Your task to perform on an android device: open sync settings in chrome Image 0: 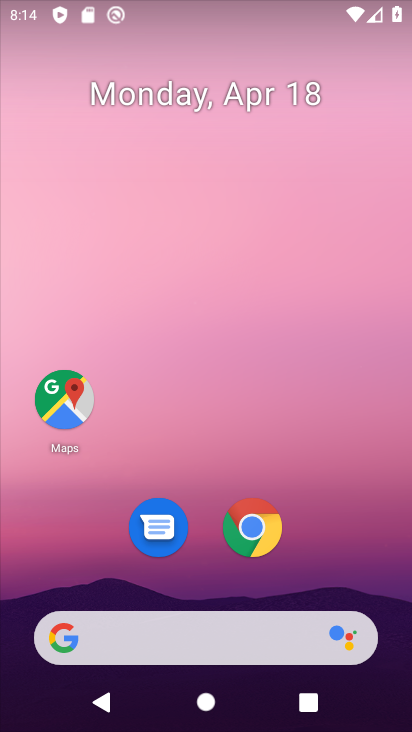
Step 0: drag from (124, 547) to (277, 41)
Your task to perform on an android device: open sync settings in chrome Image 1: 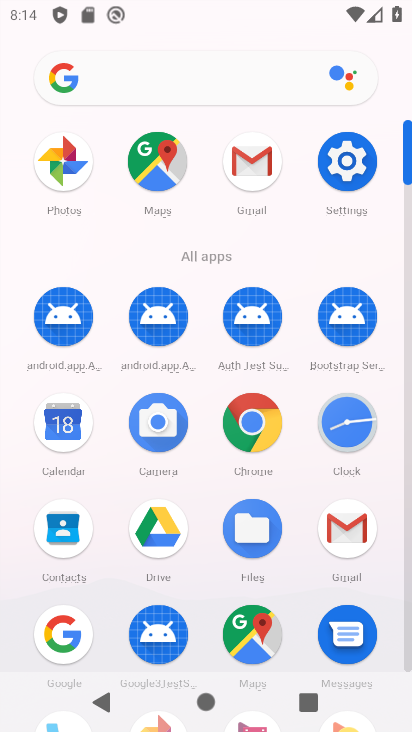
Step 1: click (254, 436)
Your task to perform on an android device: open sync settings in chrome Image 2: 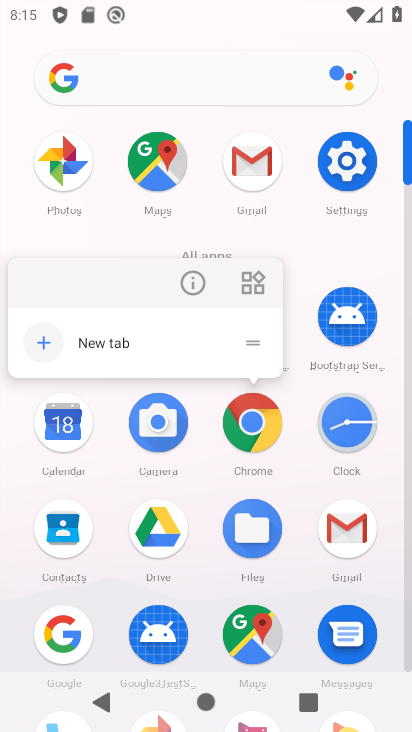
Step 2: click (254, 411)
Your task to perform on an android device: open sync settings in chrome Image 3: 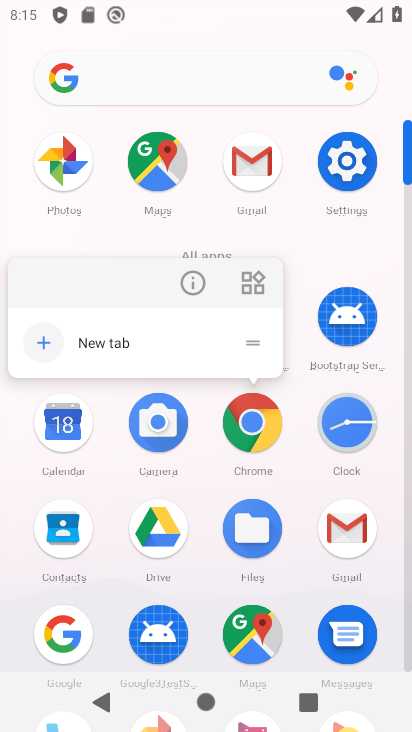
Step 3: click (245, 414)
Your task to perform on an android device: open sync settings in chrome Image 4: 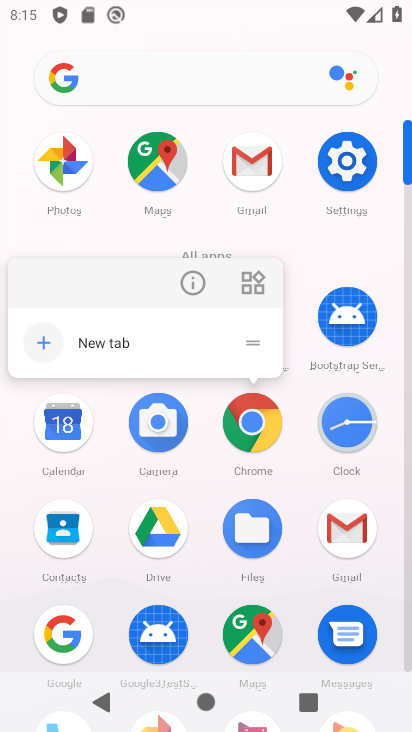
Step 4: click (244, 434)
Your task to perform on an android device: open sync settings in chrome Image 5: 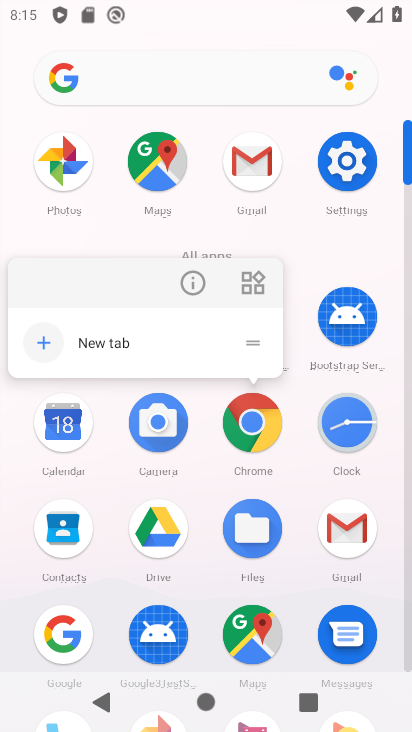
Step 5: click (267, 437)
Your task to perform on an android device: open sync settings in chrome Image 6: 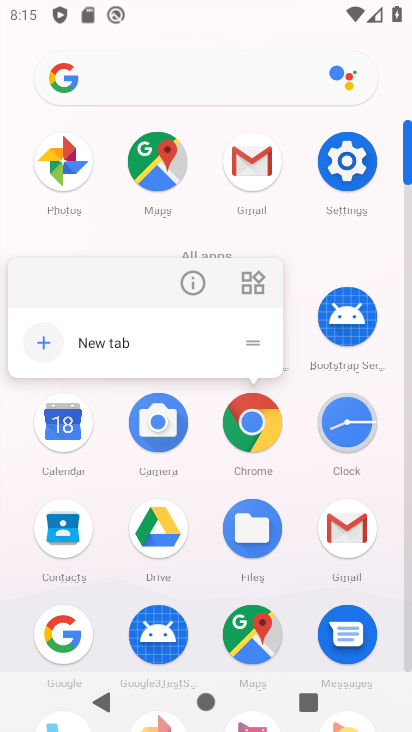
Step 6: click (264, 429)
Your task to perform on an android device: open sync settings in chrome Image 7: 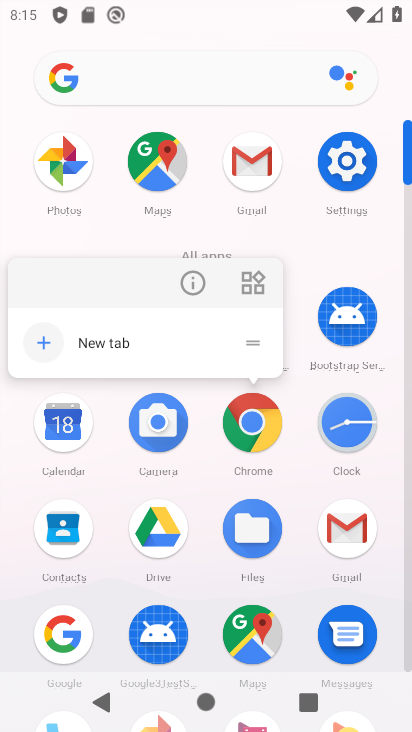
Step 7: click (255, 398)
Your task to perform on an android device: open sync settings in chrome Image 8: 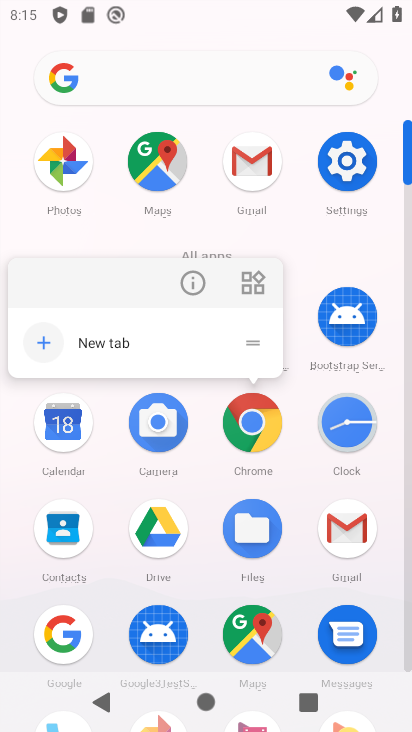
Step 8: click (255, 422)
Your task to perform on an android device: open sync settings in chrome Image 9: 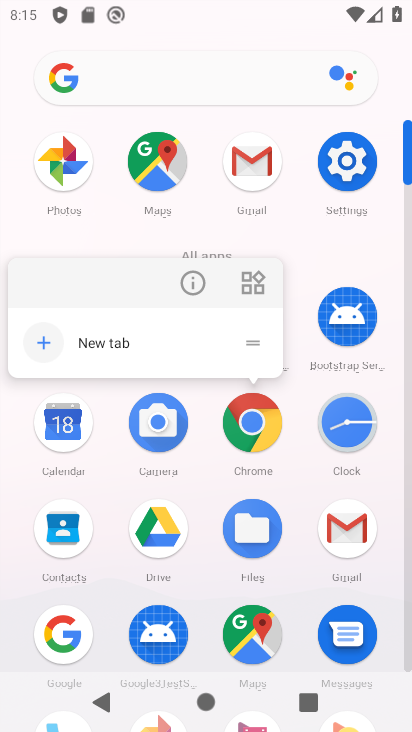
Step 9: click (238, 439)
Your task to perform on an android device: open sync settings in chrome Image 10: 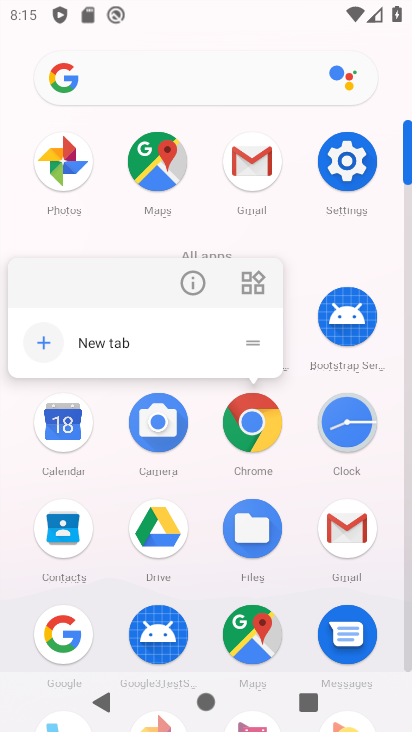
Step 10: click (233, 400)
Your task to perform on an android device: open sync settings in chrome Image 11: 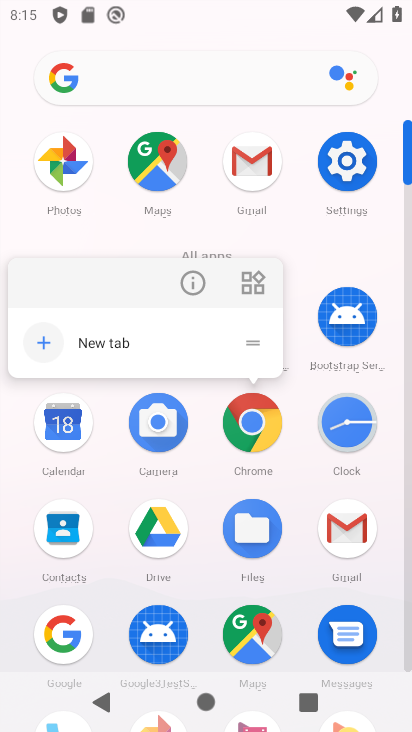
Step 11: click (245, 407)
Your task to perform on an android device: open sync settings in chrome Image 12: 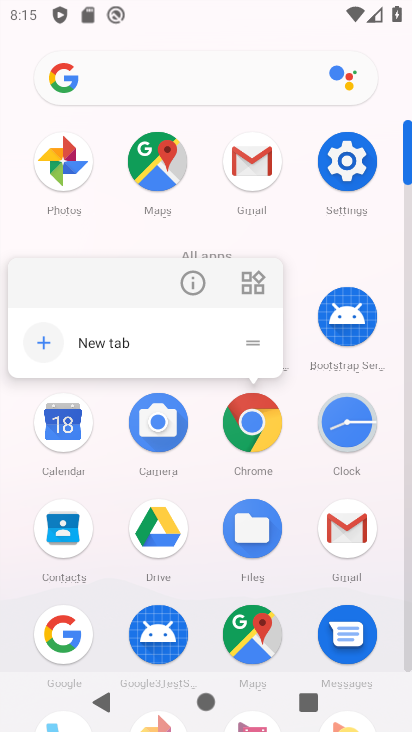
Step 12: click (251, 438)
Your task to perform on an android device: open sync settings in chrome Image 13: 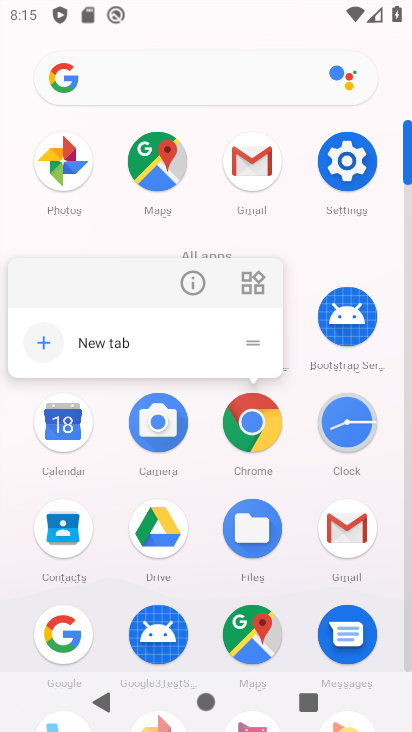
Step 13: click (274, 420)
Your task to perform on an android device: open sync settings in chrome Image 14: 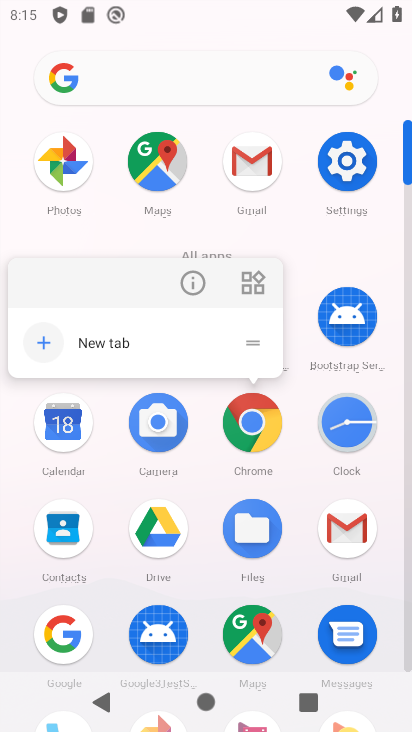
Step 14: click (273, 447)
Your task to perform on an android device: open sync settings in chrome Image 15: 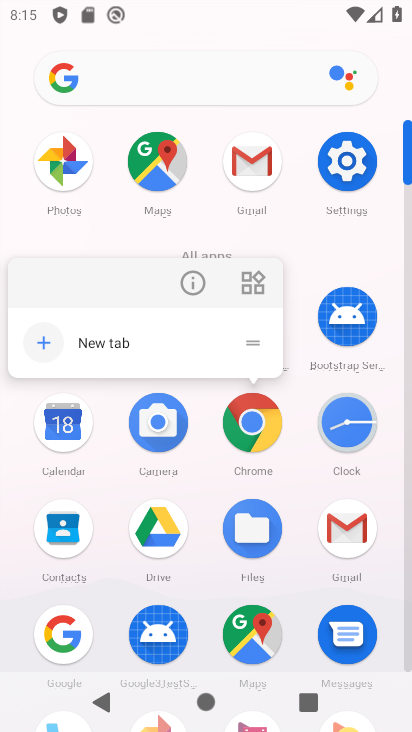
Step 15: click (245, 417)
Your task to perform on an android device: open sync settings in chrome Image 16: 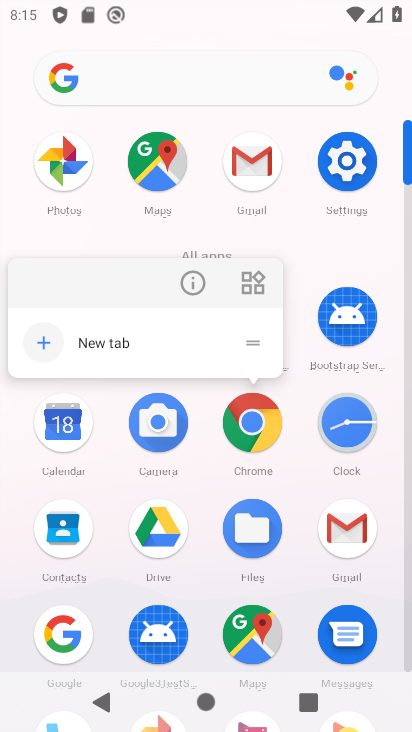
Step 16: click (273, 423)
Your task to perform on an android device: open sync settings in chrome Image 17: 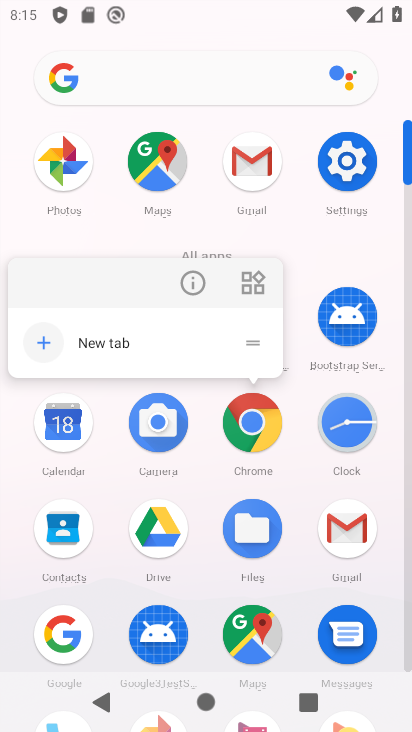
Step 17: click (274, 438)
Your task to perform on an android device: open sync settings in chrome Image 18: 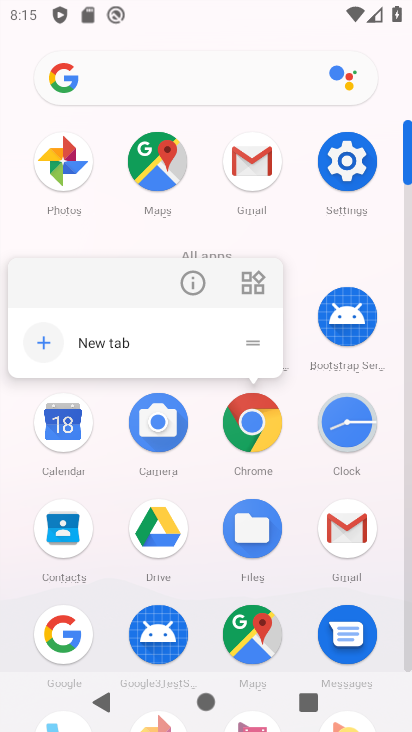
Step 18: click (268, 419)
Your task to perform on an android device: open sync settings in chrome Image 19: 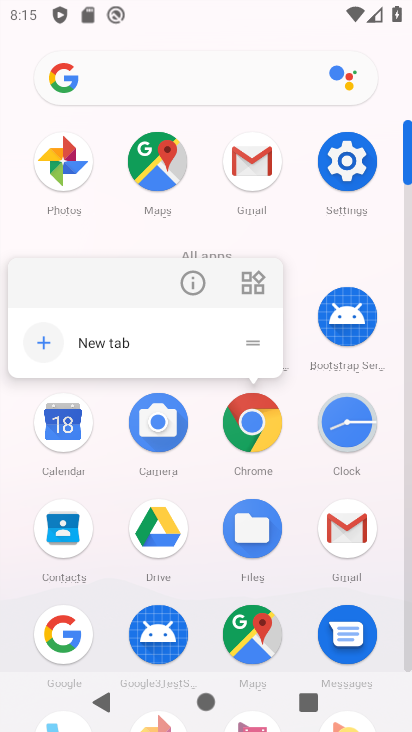
Step 19: click (251, 433)
Your task to perform on an android device: open sync settings in chrome Image 20: 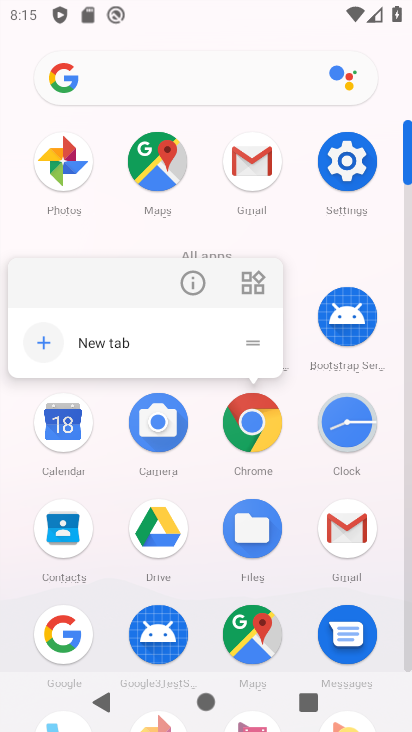
Step 20: click (262, 416)
Your task to perform on an android device: open sync settings in chrome Image 21: 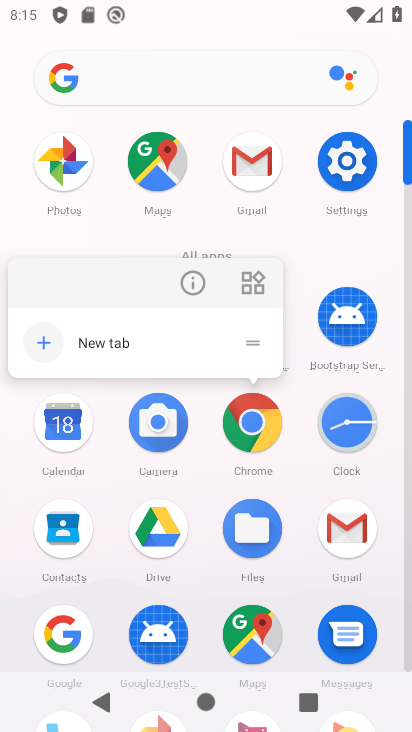
Step 21: click (266, 435)
Your task to perform on an android device: open sync settings in chrome Image 22: 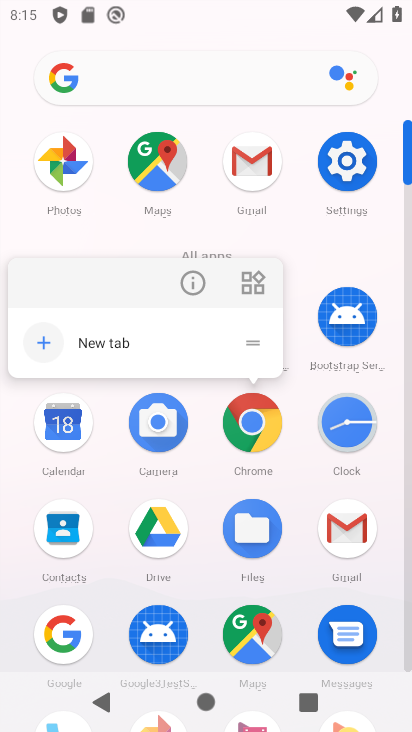
Step 22: click (259, 426)
Your task to perform on an android device: open sync settings in chrome Image 23: 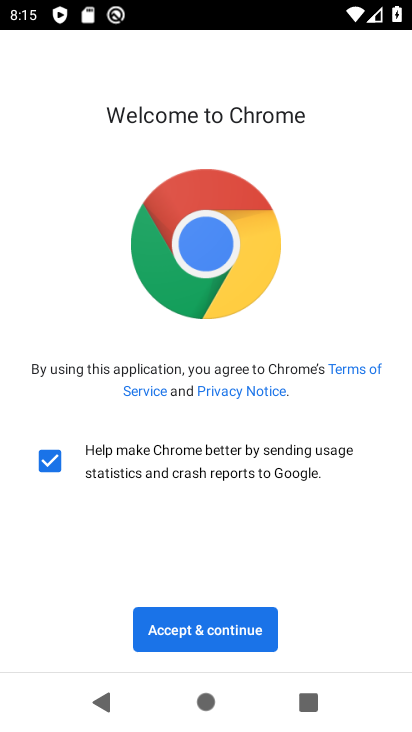
Step 23: click (239, 635)
Your task to perform on an android device: open sync settings in chrome Image 24: 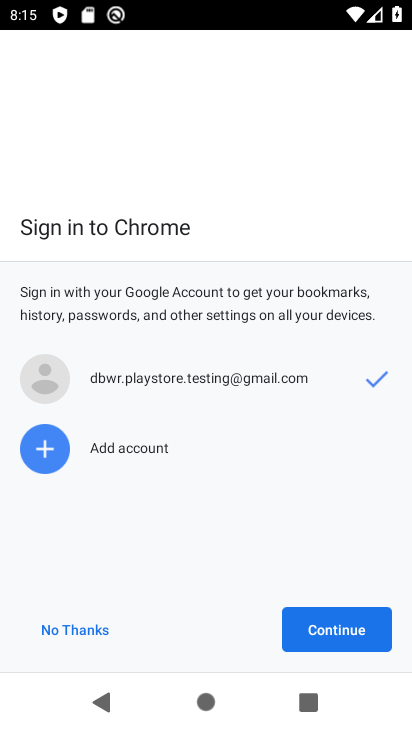
Step 24: click (383, 637)
Your task to perform on an android device: open sync settings in chrome Image 25: 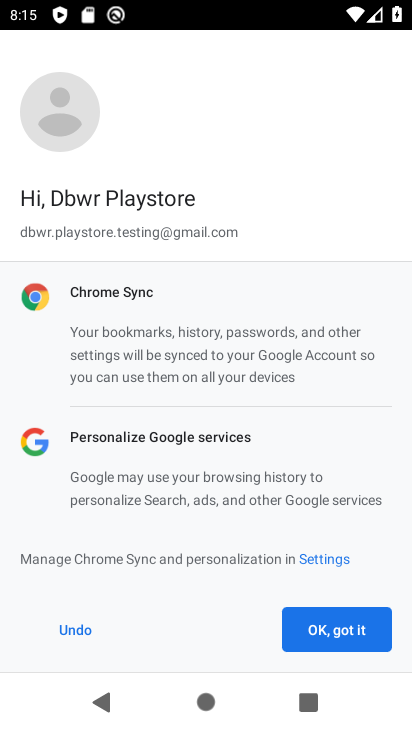
Step 25: click (379, 634)
Your task to perform on an android device: open sync settings in chrome Image 26: 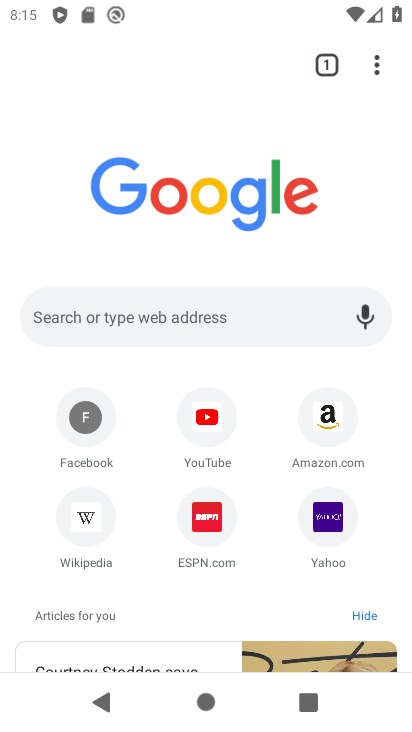
Step 26: click (383, 75)
Your task to perform on an android device: open sync settings in chrome Image 27: 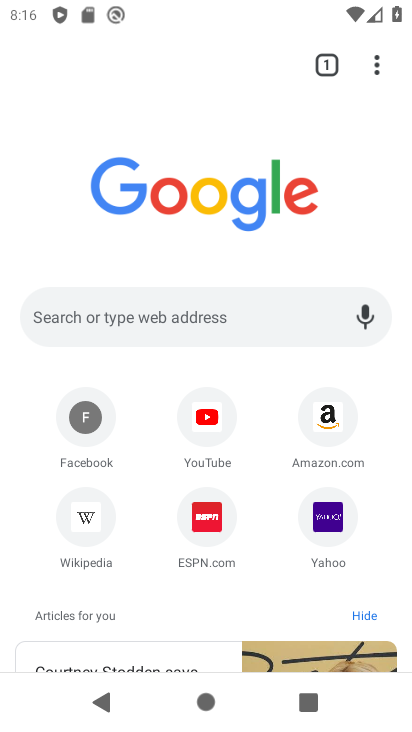
Step 27: click (380, 68)
Your task to perform on an android device: open sync settings in chrome Image 28: 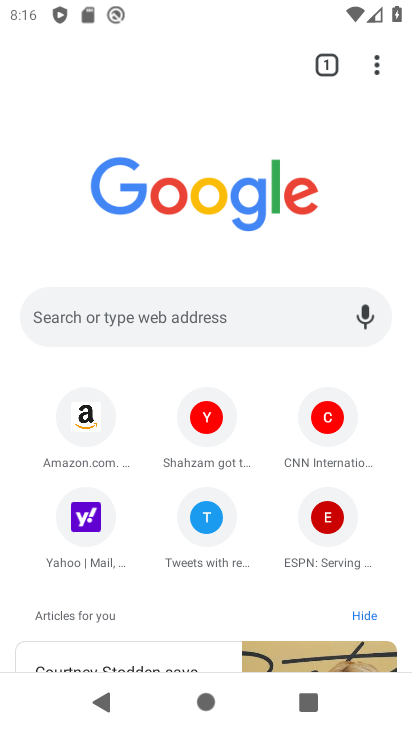
Step 28: drag from (380, 68) to (260, 570)
Your task to perform on an android device: open sync settings in chrome Image 29: 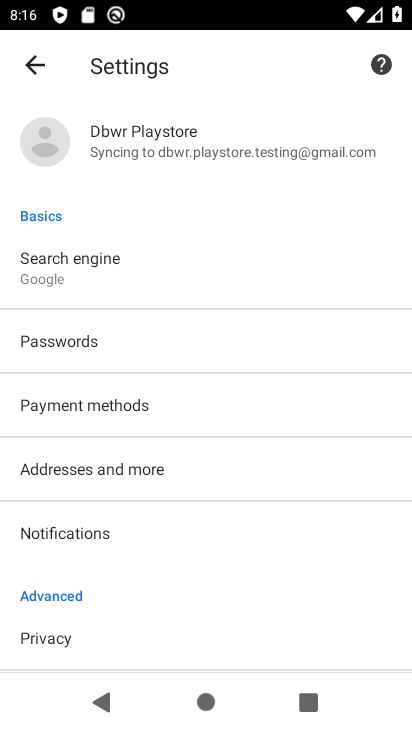
Step 29: click (202, 155)
Your task to perform on an android device: open sync settings in chrome Image 30: 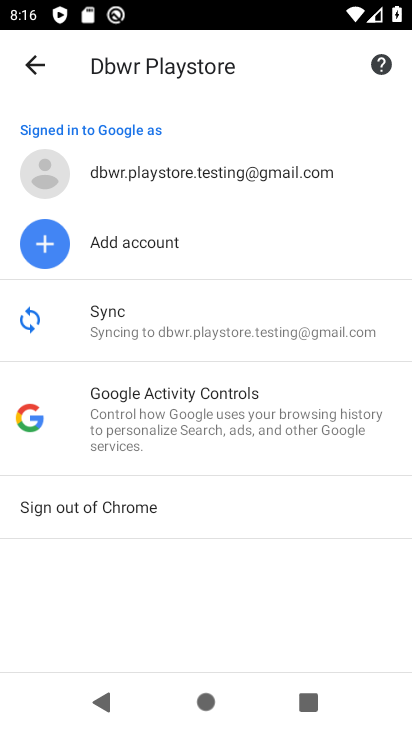
Step 30: click (221, 339)
Your task to perform on an android device: open sync settings in chrome Image 31: 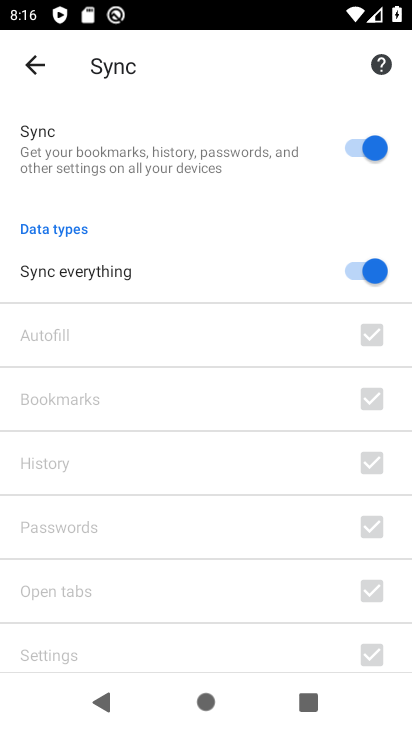
Step 31: task complete